Your task to perform on an android device: What's the weather going to be tomorrow? Image 0: 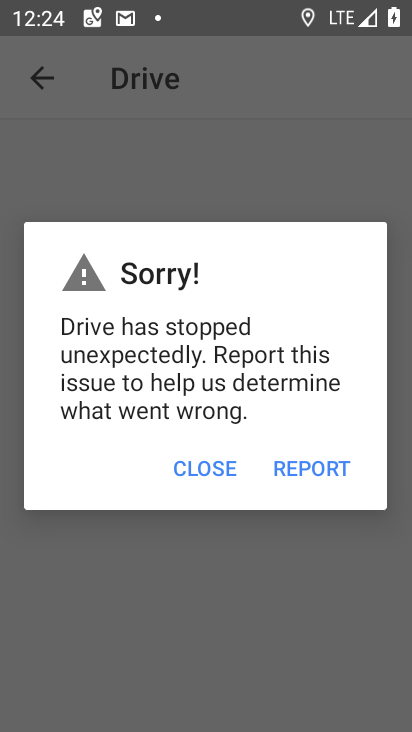
Step 0: press home button
Your task to perform on an android device: What's the weather going to be tomorrow? Image 1: 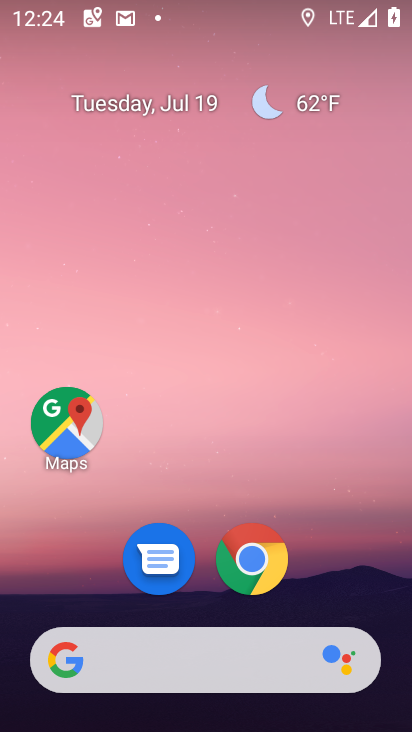
Step 1: drag from (207, 659) to (277, 57)
Your task to perform on an android device: What's the weather going to be tomorrow? Image 2: 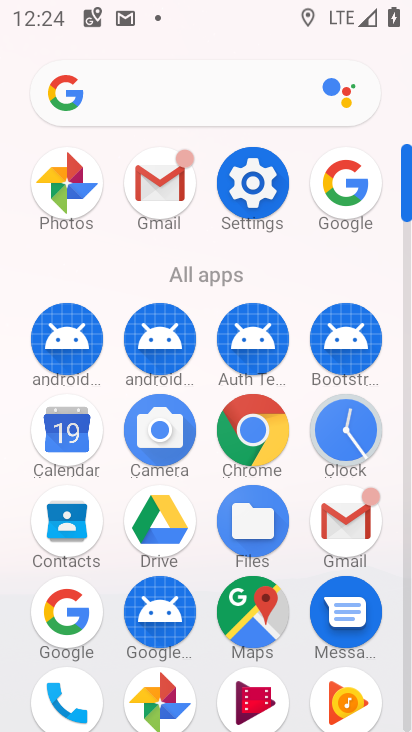
Step 2: drag from (289, 555) to (354, 324)
Your task to perform on an android device: What's the weather going to be tomorrow? Image 3: 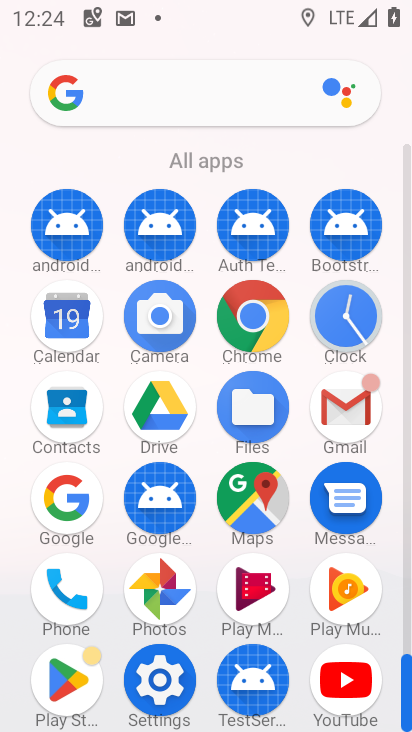
Step 3: drag from (202, 562) to (206, 227)
Your task to perform on an android device: What's the weather going to be tomorrow? Image 4: 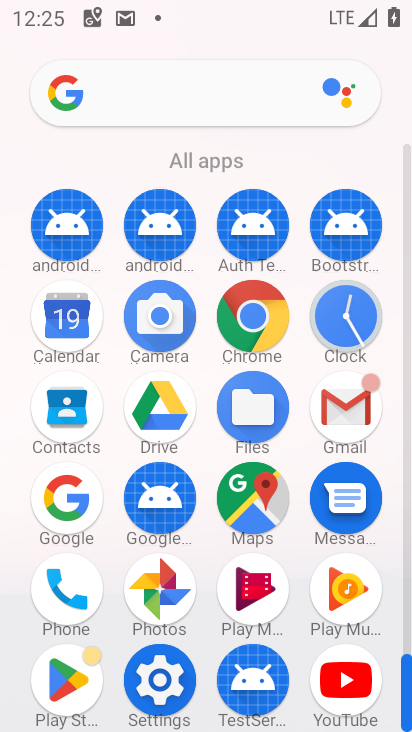
Step 4: drag from (253, 523) to (249, 177)
Your task to perform on an android device: What's the weather going to be tomorrow? Image 5: 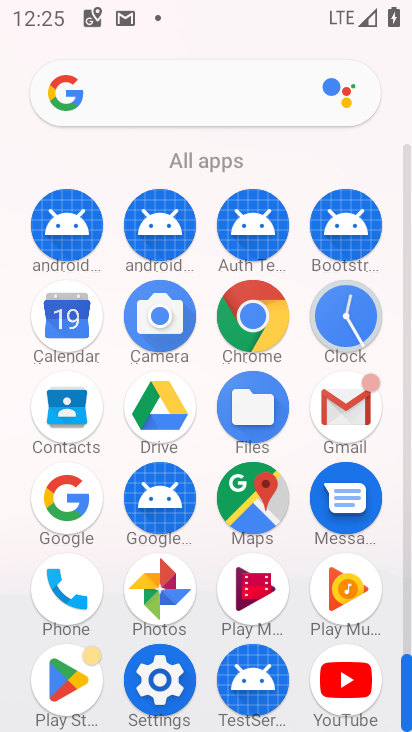
Step 5: click (83, 504)
Your task to perform on an android device: What's the weather going to be tomorrow? Image 6: 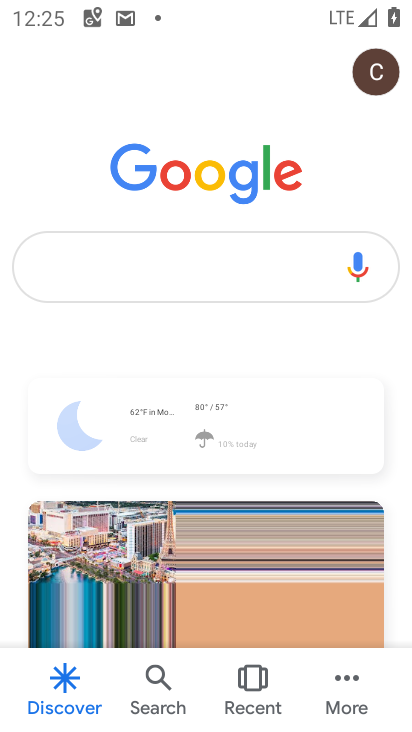
Step 6: click (180, 271)
Your task to perform on an android device: What's the weather going to be tomorrow? Image 7: 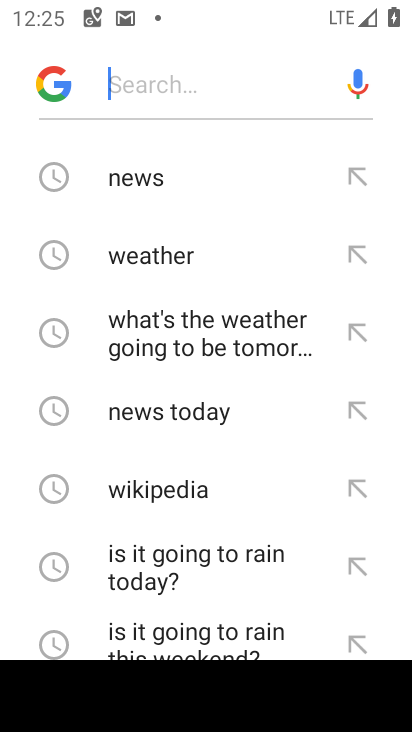
Step 7: click (223, 249)
Your task to perform on an android device: What's the weather going to be tomorrow? Image 8: 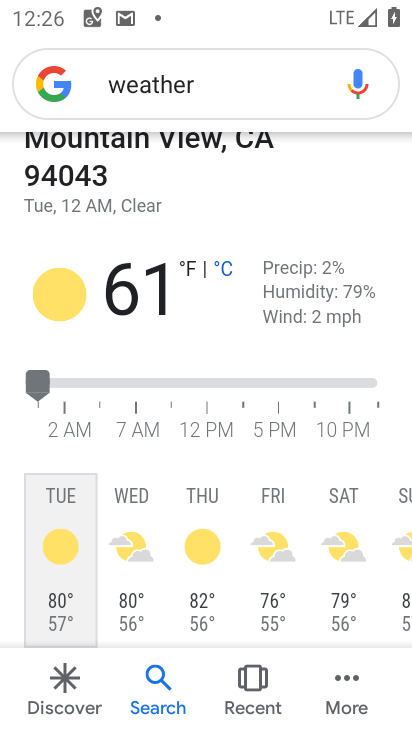
Step 8: click (235, 97)
Your task to perform on an android device: What's the weather going to be tomorrow? Image 9: 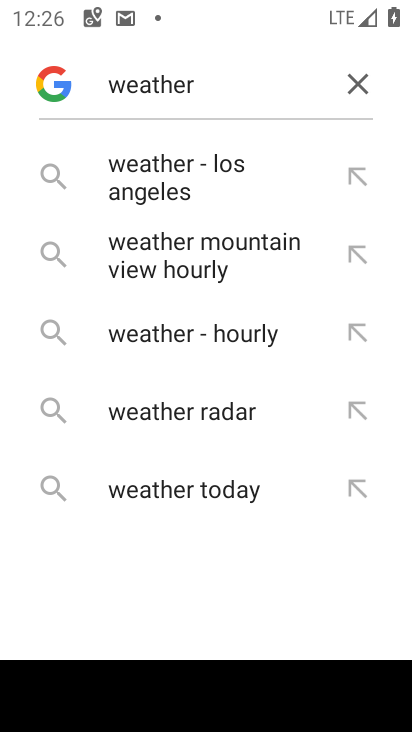
Step 9: type " tommorrow"
Your task to perform on an android device: What's the weather going to be tomorrow? Image 10: 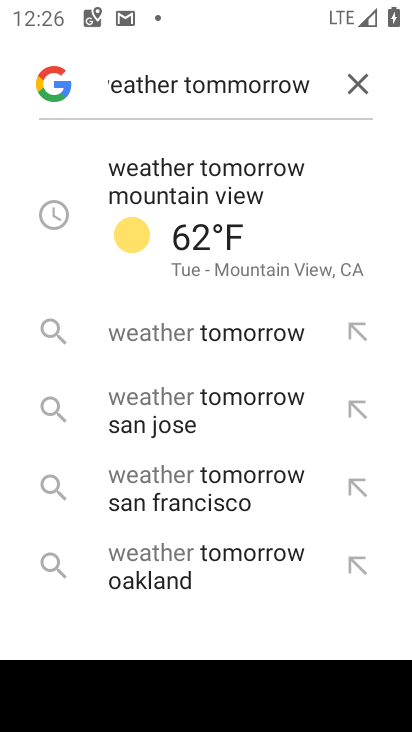
Step 10: click (265, 187)
Your task to perform on an android device: What's the weather going to be tomorrow? Image 11: 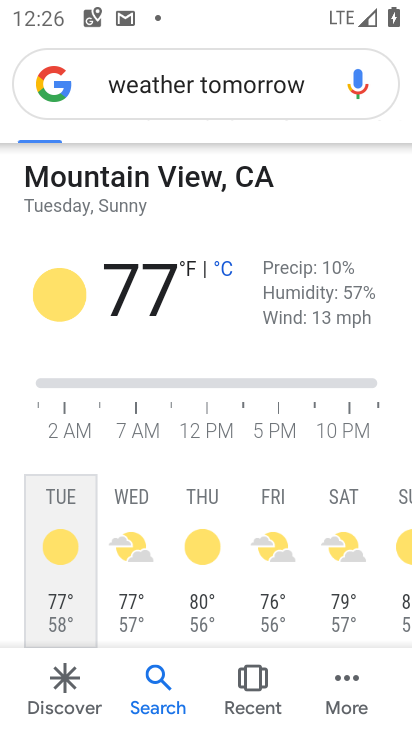
Step 11: task complete